Your task to perform on an android device: turn on data saver in the chrome app Image 0: 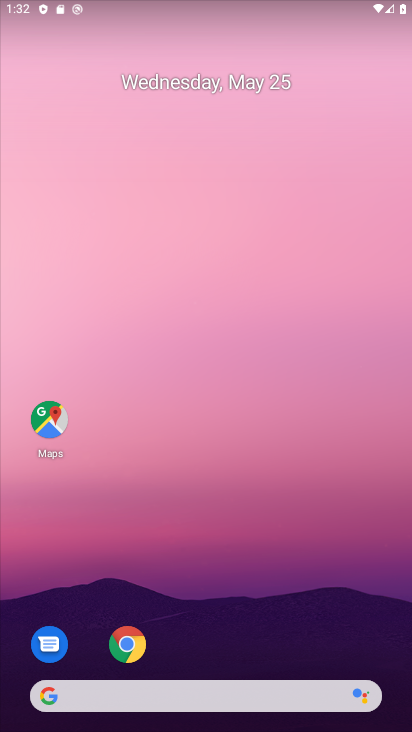
Step 0: drag from (328, 638) to (322, 275)
Your task to perform on an android device: turn on data saver in the chrome app Image 1: 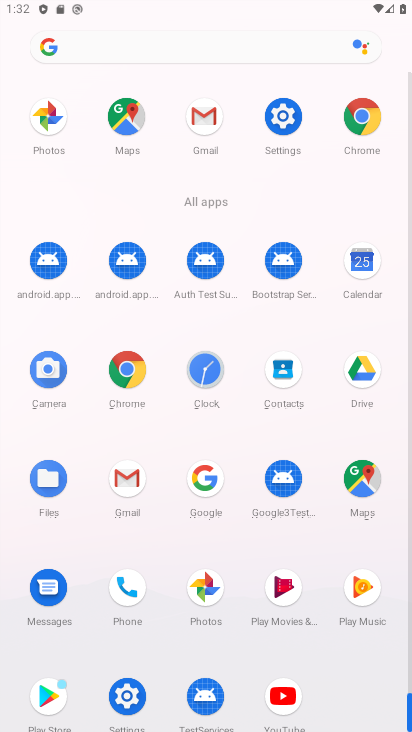
Step 1: click (119, 383)
Your task to perform on an android device: turn on data saver in the chrome app Image 2: 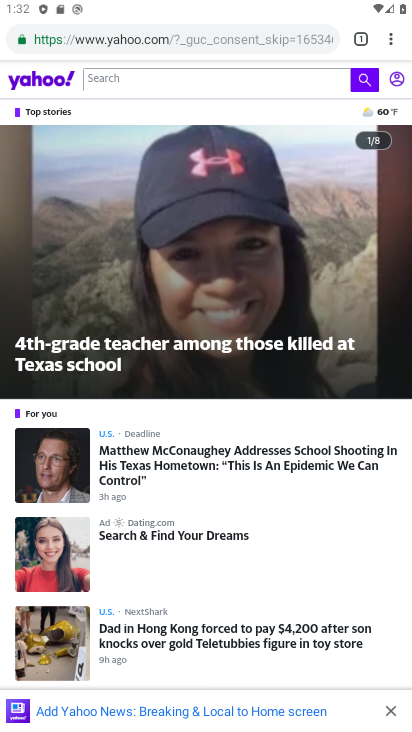
Step 2: click (388, 44)
Your task to perform on an android device: turn on data saver in the chrome app Image 3: 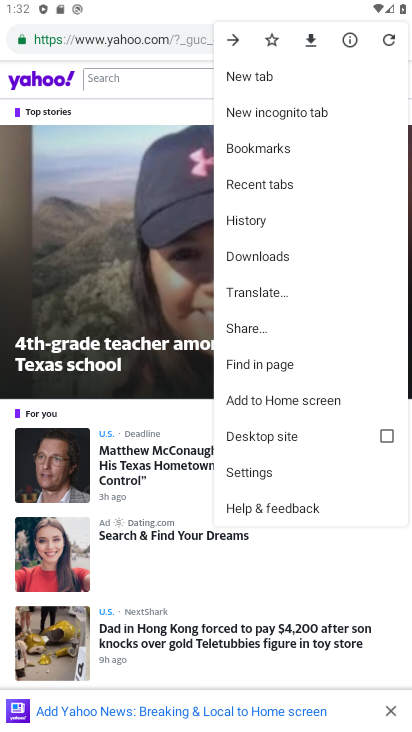
Step 3: click (265, 474)
Your task to perform on an android device: turn on data saver in the chrome app Image 4: 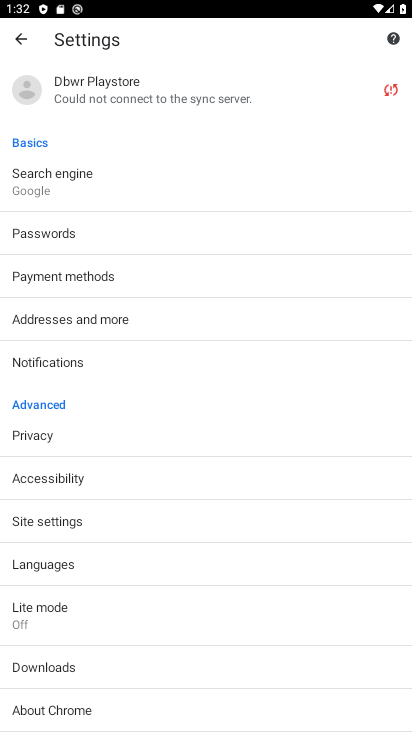
Step 4: drag from (256, 540) to (269, 398)
Your task to perform on an android device: turn on data saver in the chrome app Image 5: 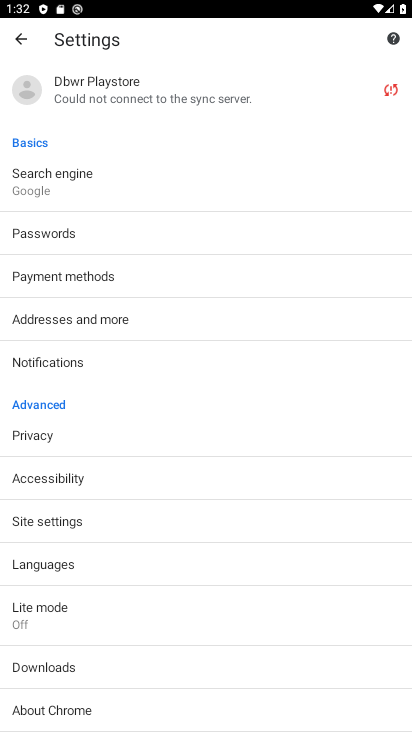
Step 5: click (145, 618)
Your task to perform on an android device: turn on data saver in the chrome app Image 6: 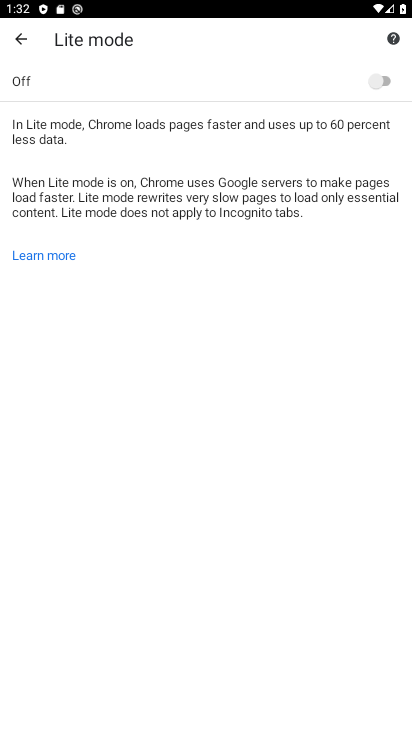
Step 6: click (365, 83)
Your task to perform on an android device: turn on data saver in the chrome app Image 7: 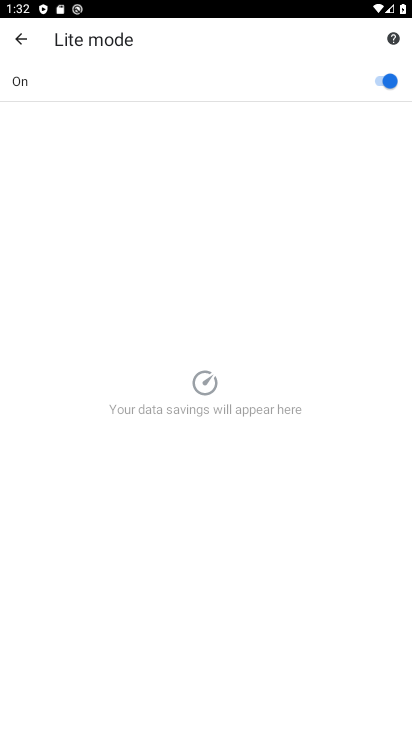
Step 7: task complete